Your task to perform on an android device: turn on translation in the chrome app Image 0: 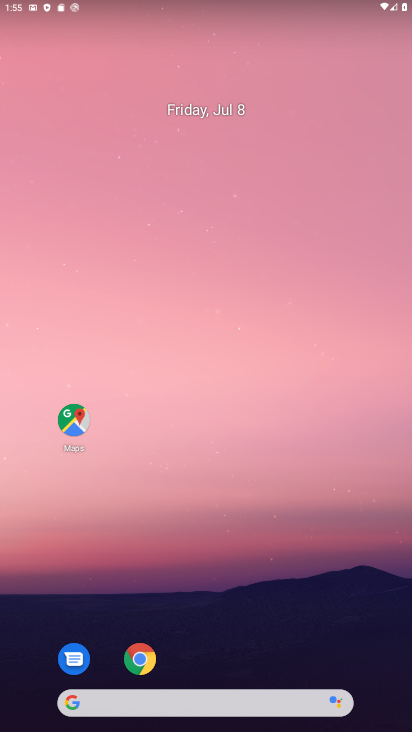
Step 0: press home button
Your task to perform on an android device: turn on translation in the chrome app Image 1: 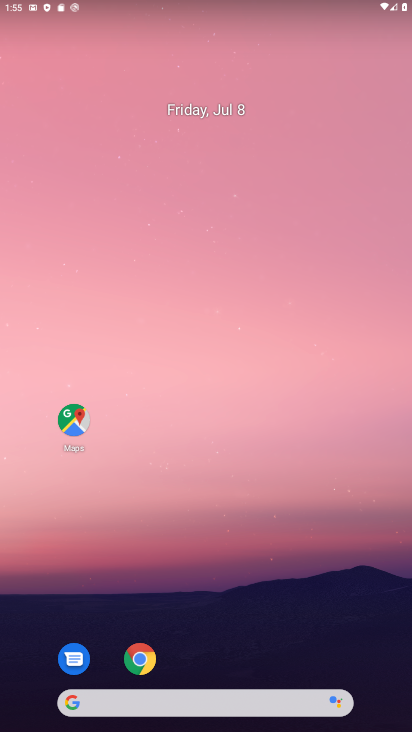
Step 1: drag from (404, 671) to (398, 185)
Your task to perform on an android device: turn on translation in the chrome app Image 2: 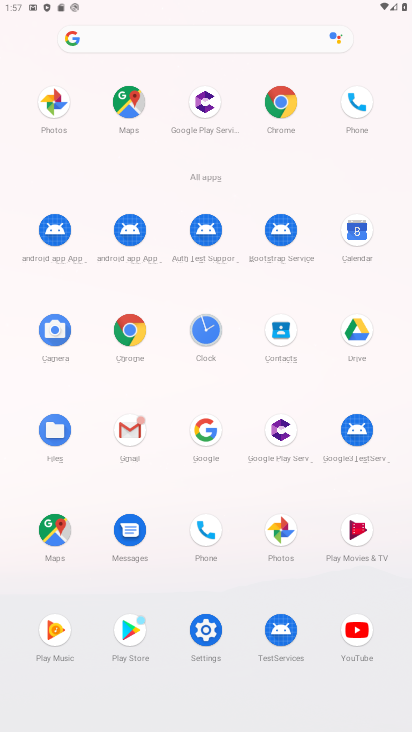
Step 2: click (281, 126)
Your task to perform on an android device: turn on translation in the chrome app Image 3: 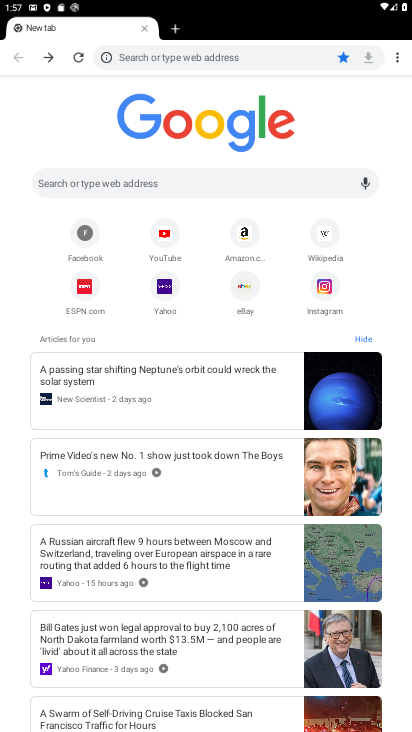
Step 3: drag from (405, 64) to (269, 297)
Your task to perform on an android device: turn on translation in the chrome app Image 4: 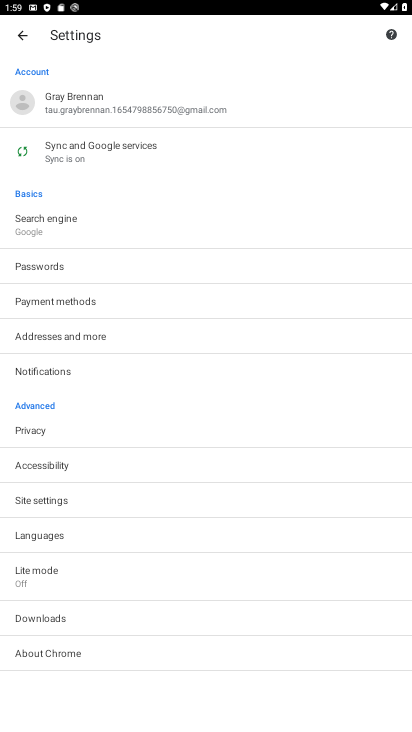
Step 4: click (71, 527)
Your task to perform on an android device: turn on translation in the chrome app Image 5: 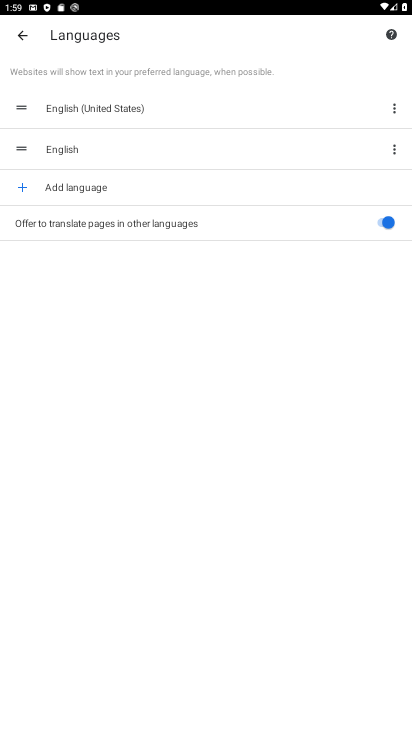
Step 5: click (268, 219)
Your task to perform on an android device: turn on translation in the chrome app Image 6: 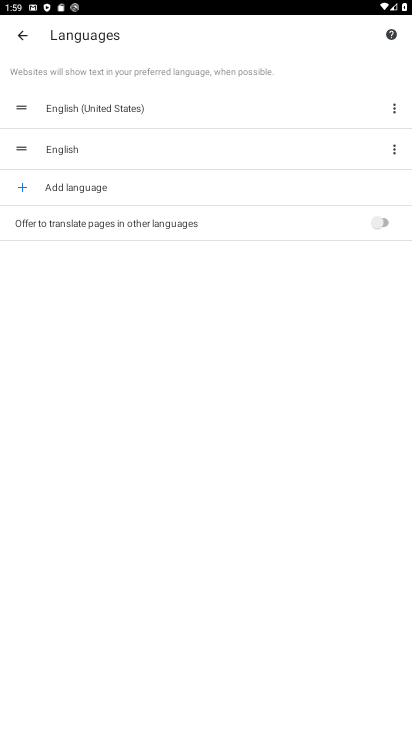
Step 6: task complete